Your task to perform on an android device: Go to location settings Image 0: 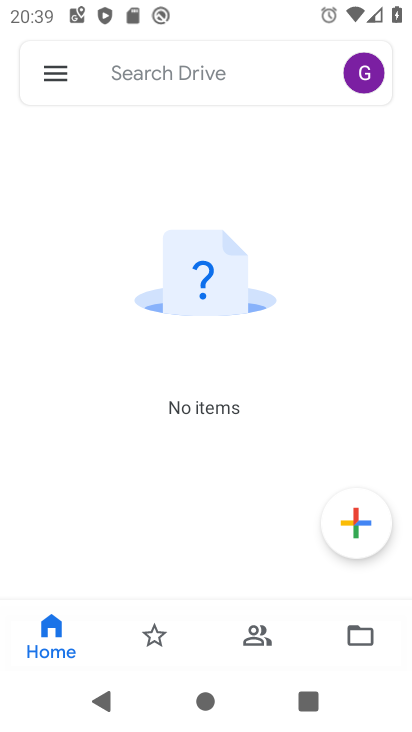
Step 0: press home button
Your task to perform on an android device: Go to location settings Image 1: 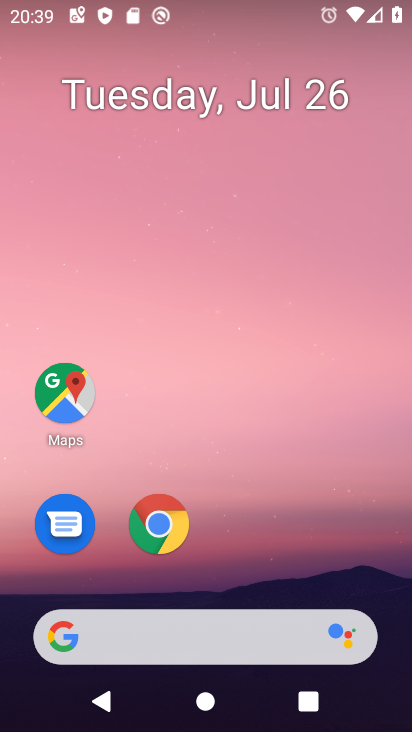
Step 1: drag from (291, 574) to (222, 50)
Your task to perform on an android device: Go to location settings Image 2: 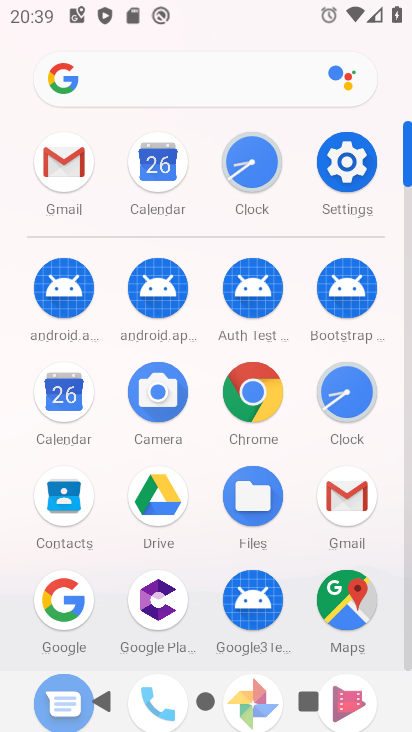
Step 2: click (353, 161)
Your task to perform on an android device: Go to location settings Image 3: 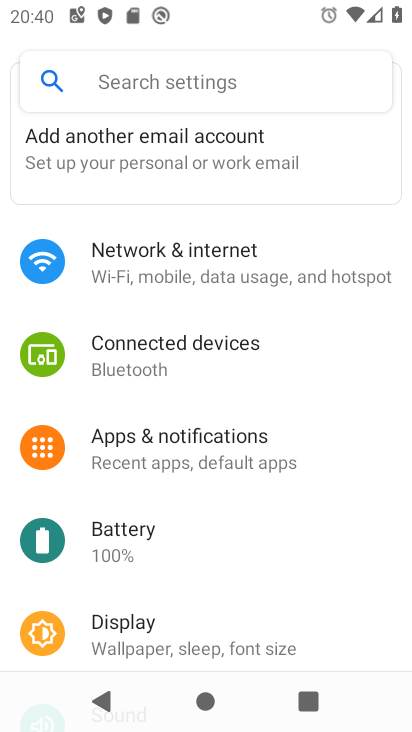
Step 3: drag from (257, 542) to (262, 3)
Your task to perform on an android device: Go to location settings Image 4: 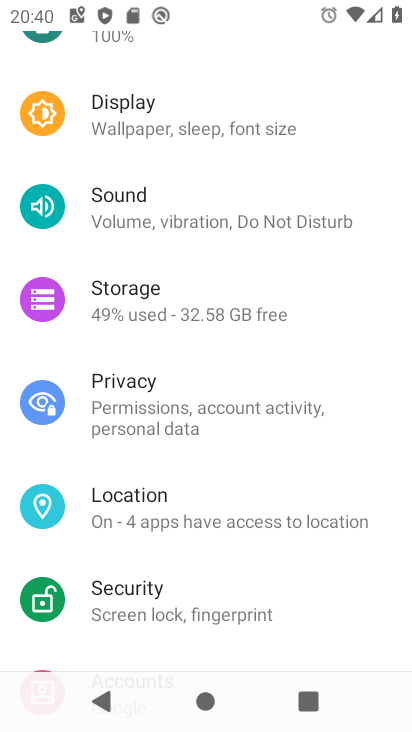
Step 4: click (172, 512)
Your task to perform on an android device: Go to location settings Image 5: 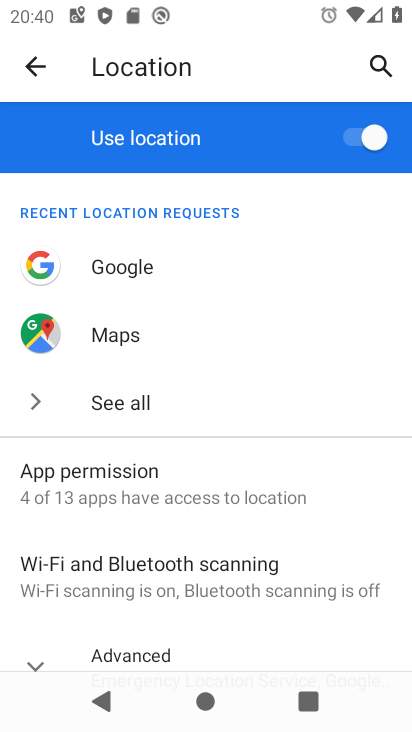
Step 5: task complete